Your task to perform on an android device: What is the news today? Image 0: 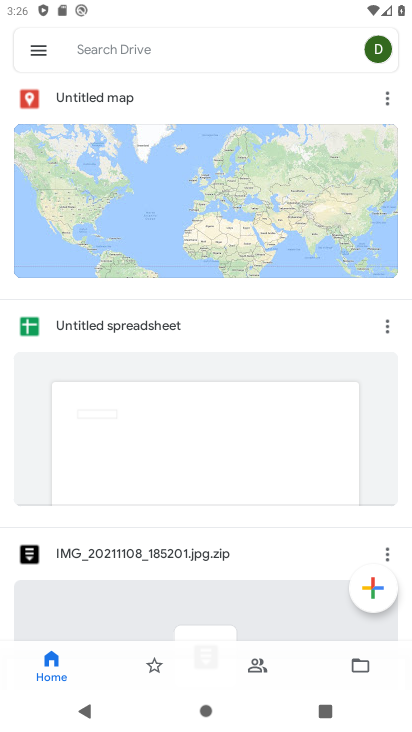
Step 0: press home button
Your task to perform on an android device: What is the news today? Image 1: 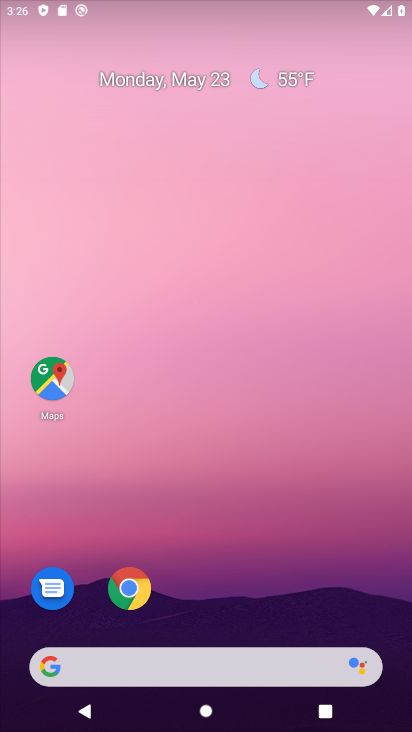
Step 1: drag from (236, 564) to (263, 146)
Your task to perform on an android device: What is the news today? Image 2: 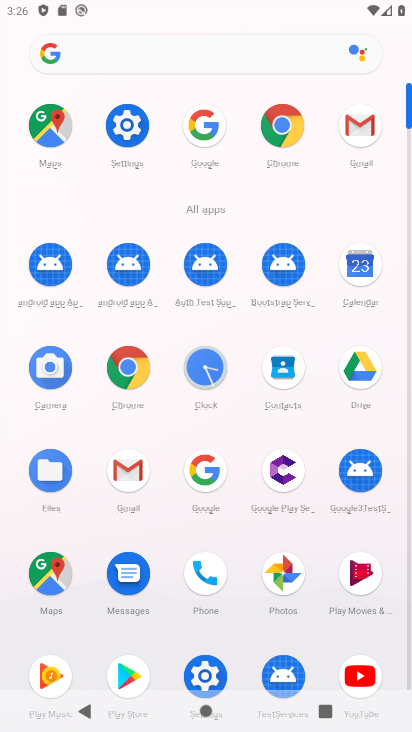
Step 2: click (211, 125)
Your task to perform on an android device: What is the news today? Image 3: 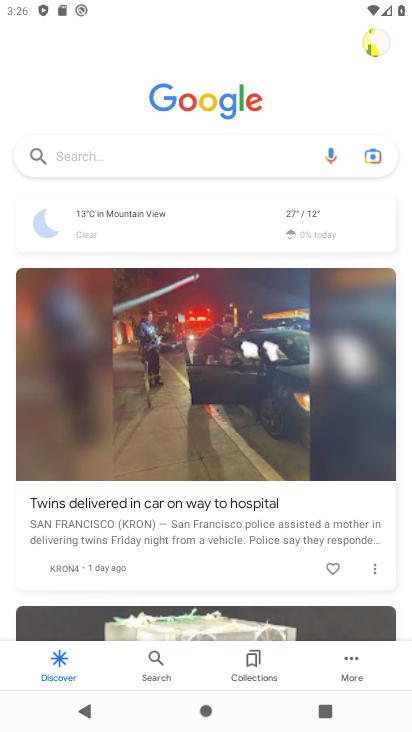
Step 3: click (159, 170)
Your task to perform on an android device: What is the news today? Image 4: 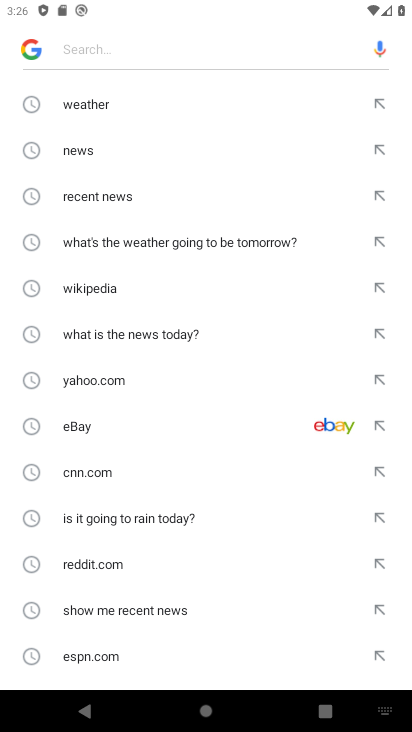
Step 4: click (110, 163)
Your task to perform on an android device: What is the news today? Image 5: 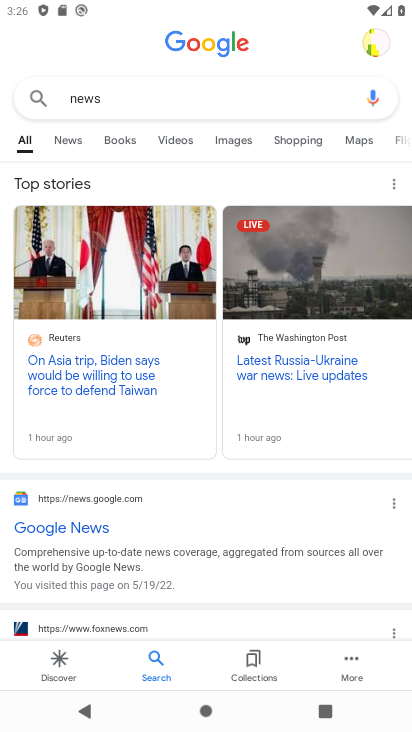
Step 5: task complete